Your task to perform on an android device: change text size in settings app Image 0: 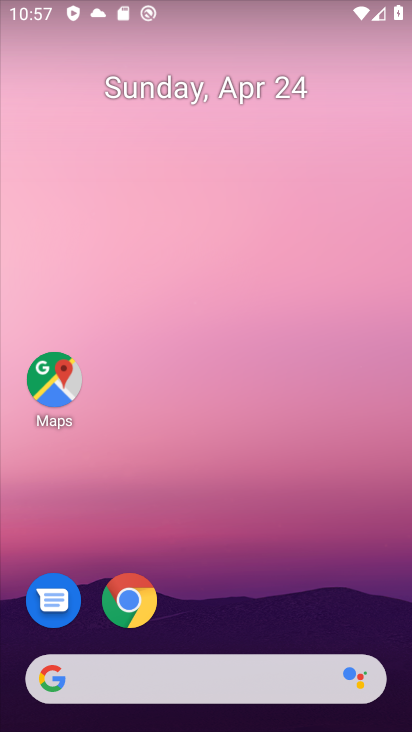
Step 0: drag from (227, 568) to (191, 37)
Your task to perform on an android device: change text size in settings app Image 1: 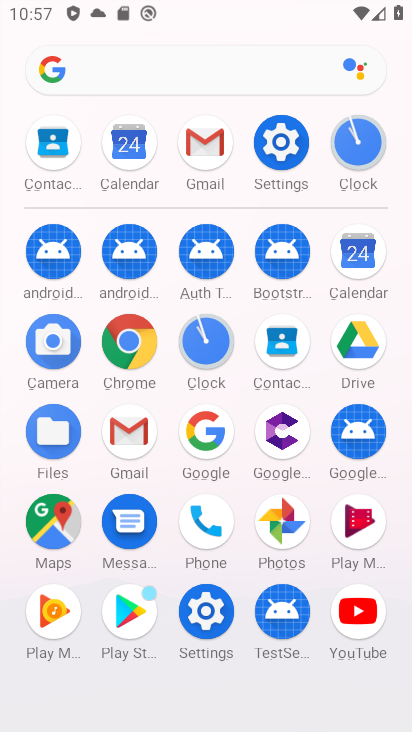
Step 1: click (286, 136)
Your task to perform on an android device: change text size in settings app Image 2: 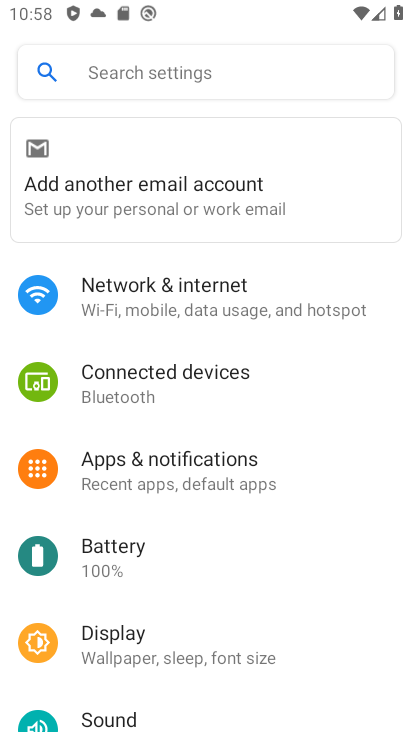
Step 2: drag from (259, 522) to (236, 311)
Your task to perform on an android device: change text size in settings app Image 3: 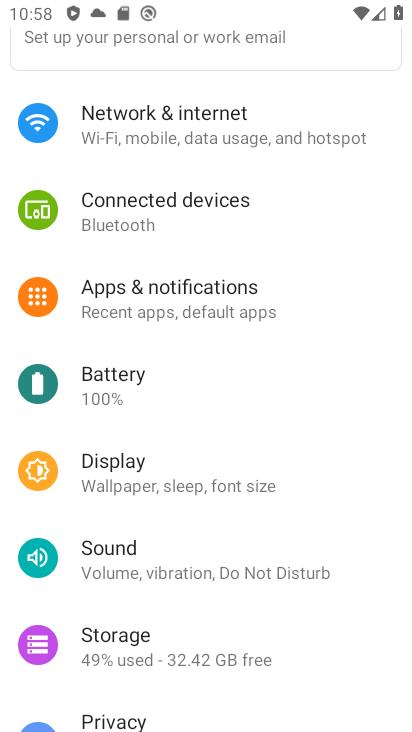
Step 3: click (121, 468)
Your task to perform on an android device: change text size in settings app Image 4: 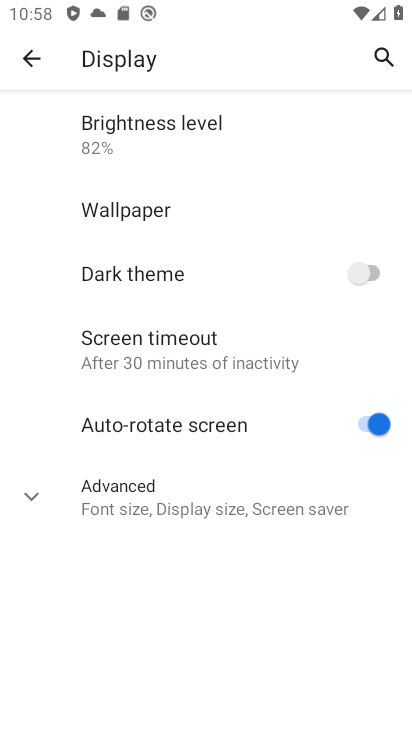
Step 4: click (112, 462)
Your task to perform on an android device: change text size in settings app Image 5: 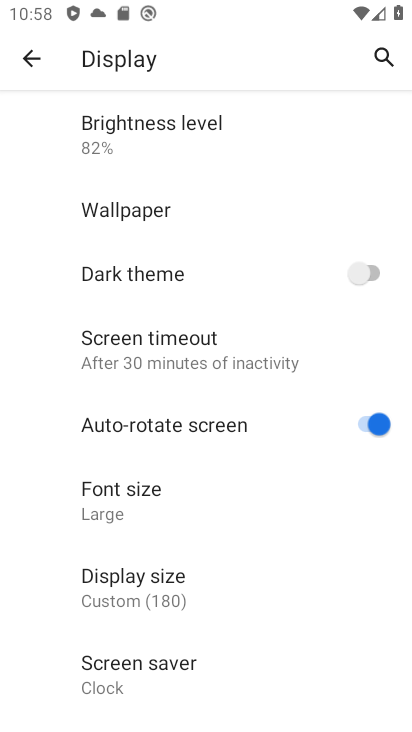
Step 5: click (95, 493)
Your task to perform on an android device: change text size in settings app Image 6: 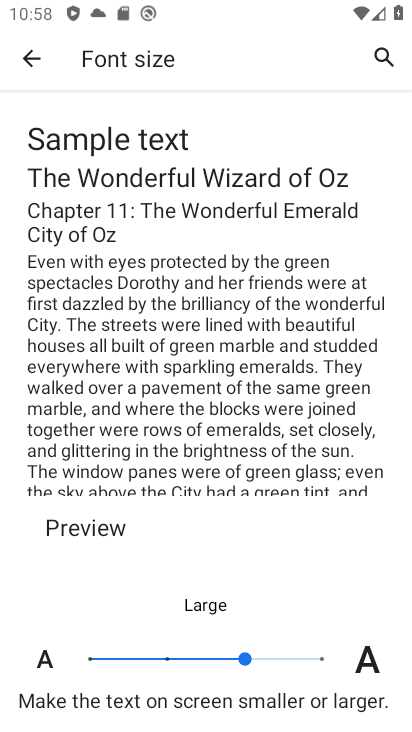
Step 6: click (114, 508)
Your task to perform on an android device: change text size in settings app Image 7: 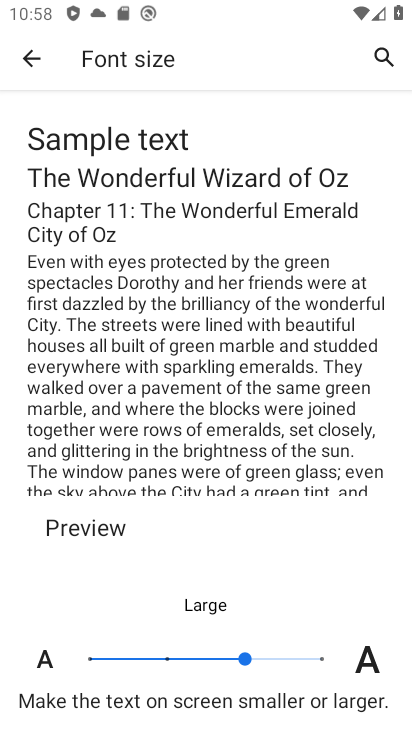
Step 7: click (172, 658)
Your task to perform on an android device: change text size in settings app Image 8: 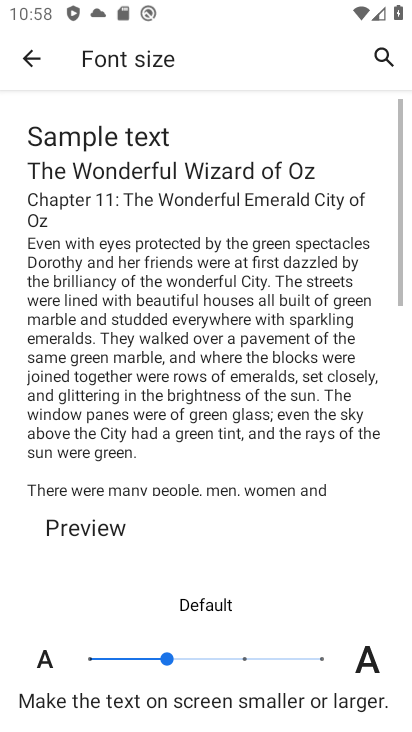
Step 8: click (172, 658)
Your task to perform on an android device: change text size in settings app Image 9: 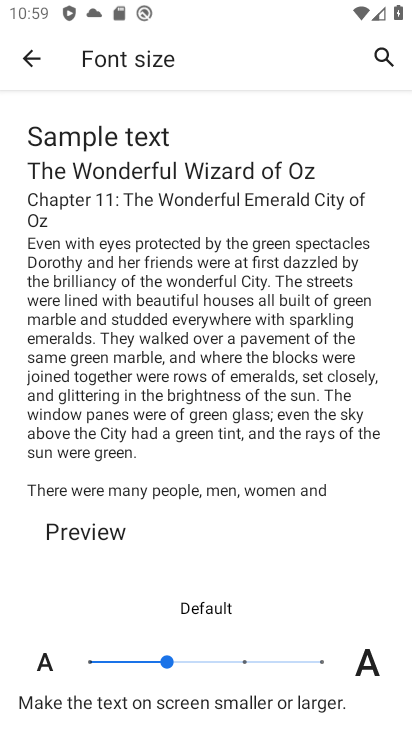
Step 9: task complete